Your task to perform on an android device: change the upload size in google photos Image 0: 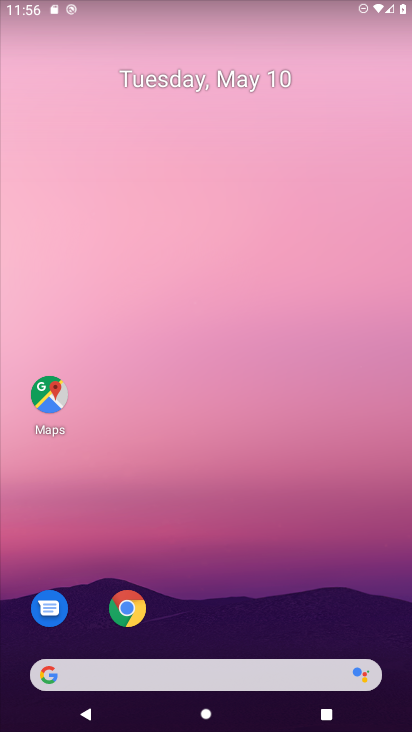
Step 0: drag from (252, 558) to (290, 82)
Your task to perform on an android device: change the upload size in google photos Image 1: 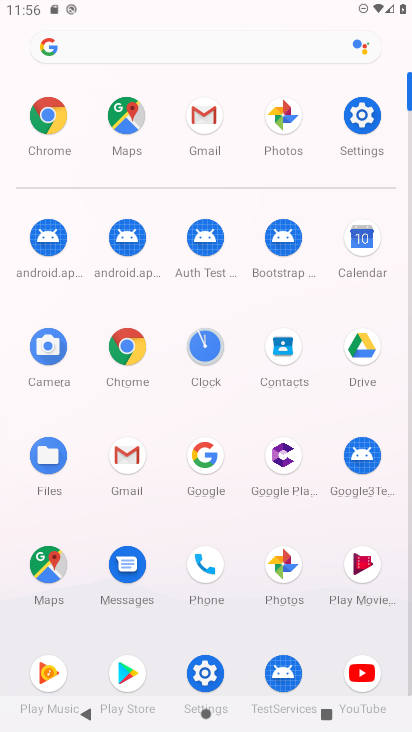
Step 1: click (274, 112)
Your task to perform on an android device: change the upload size in google photos Image 2: 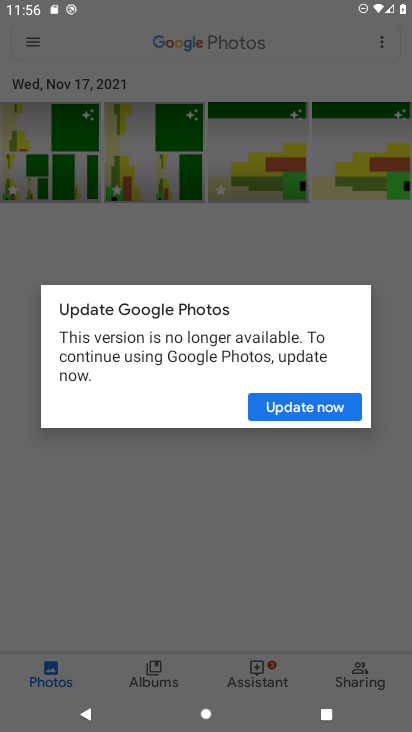
Step 2: click (338, 412)
Your task to perform on an android device: change the upload size in google photos Image 3: 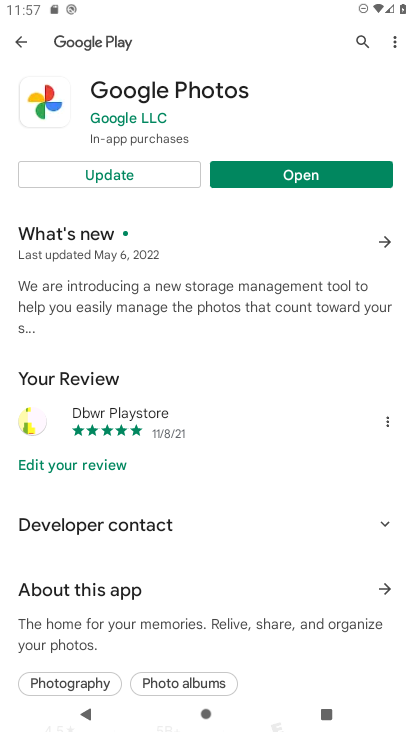
Step 3: click (339, 172)
Your task to perform on an android device: change the upload size in google photos Image 4: 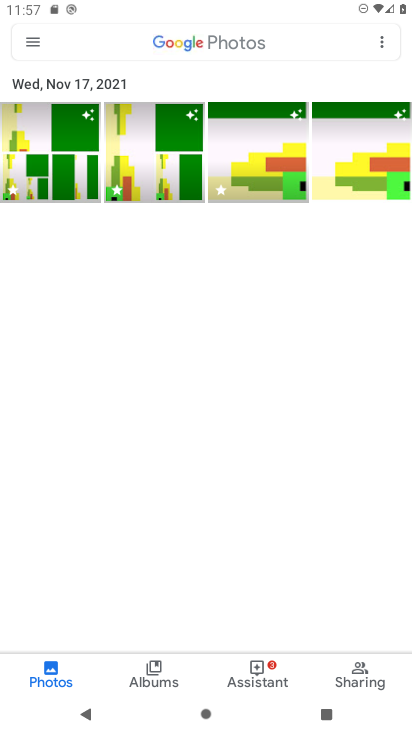
Step 4: click (32, 41)
Your task to perform on an android device: change the upload size in google photos Image 5: 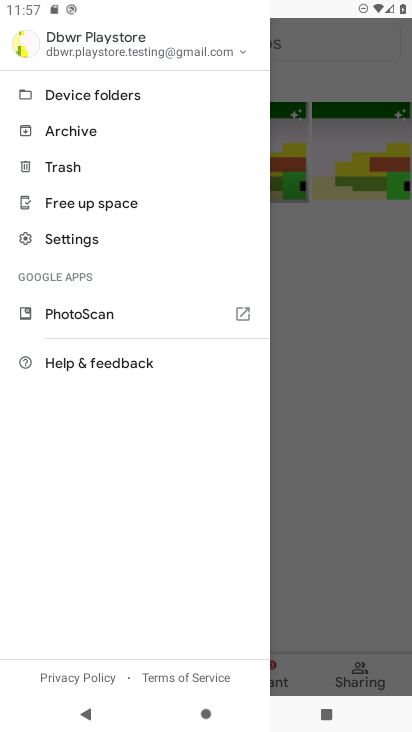
Step 5: click (123, 243)
Your task to perform on an android device: change the upload size in google photos Image 6: 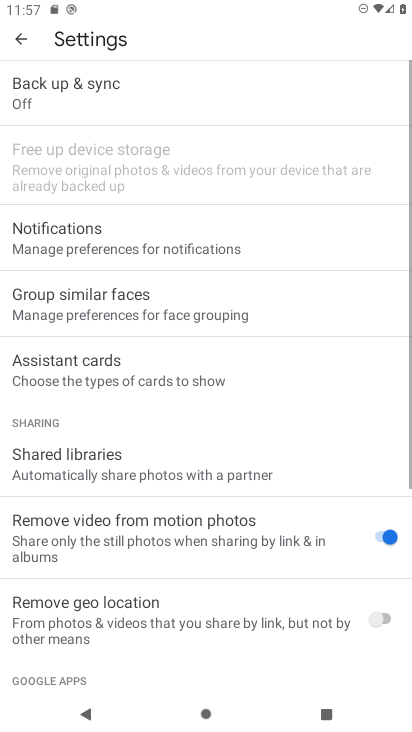
Step 6: click (81, 74)
Your task to perform on an android device: change the upload size in google photos Image 7: 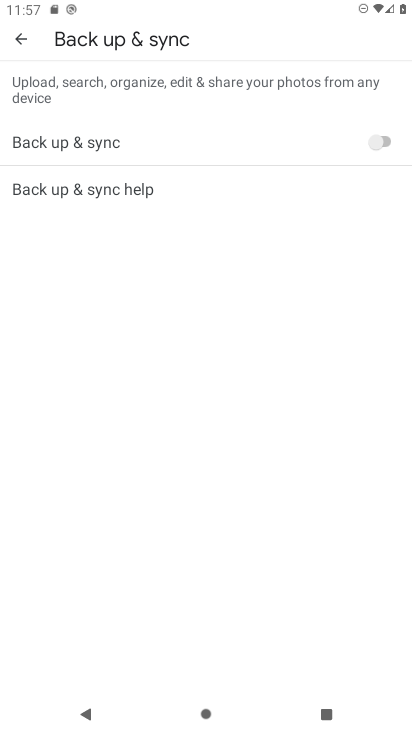
Step 7: click (384, 142)
Your task to perform on an android device: change the upload size in google photos Image 8: 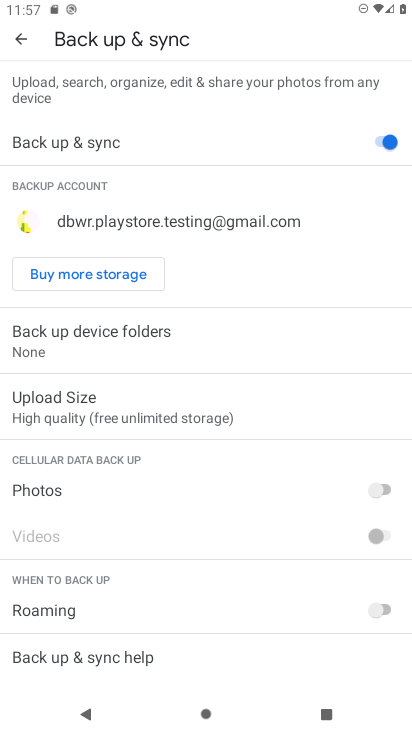
Step 8: click (207, 414)
Your task to perform on an android device: change the upload size in google photos Image 9: 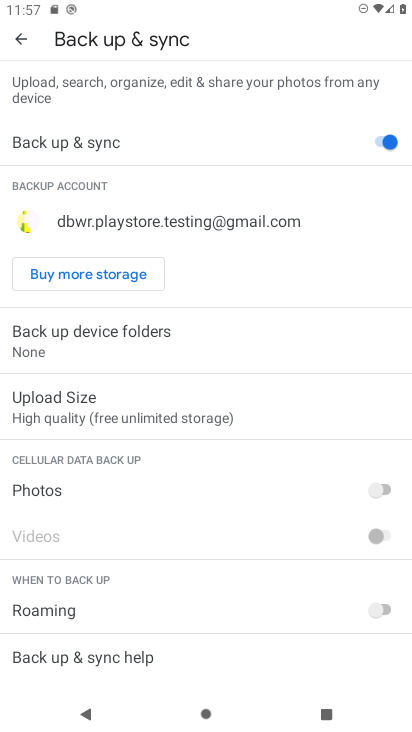
Step 9: click (210, 405)
Your task to perform on an android device: change the upload size in google photos Image 10: 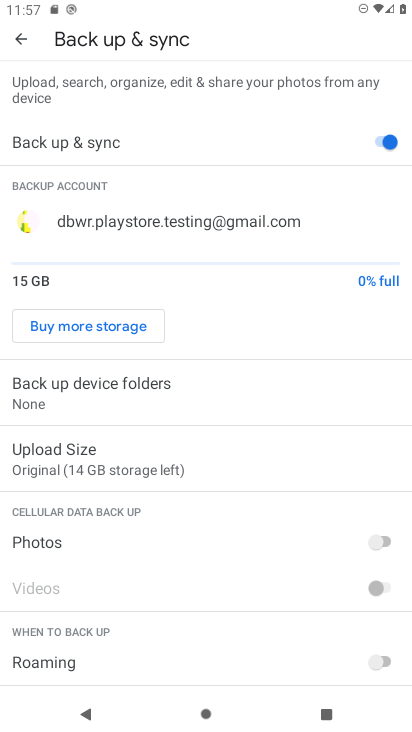
Step 10: click (144, 461)
Your task to perform on an android device: change the upload size in google photos Image 11: 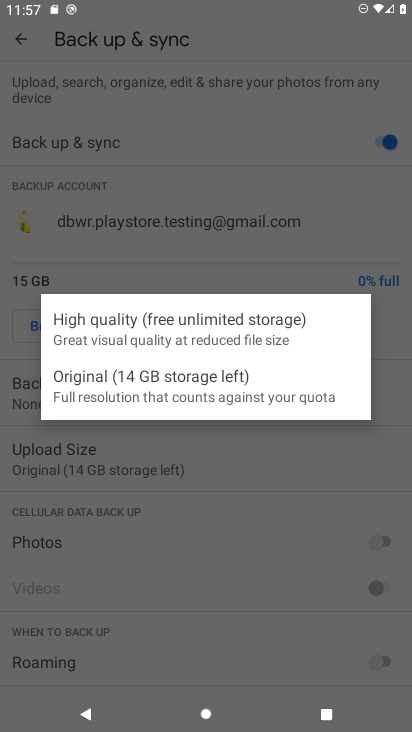
Step 11: click (199, 324)
Your task to perform on an android device: change the upload size in google photos Image 12: 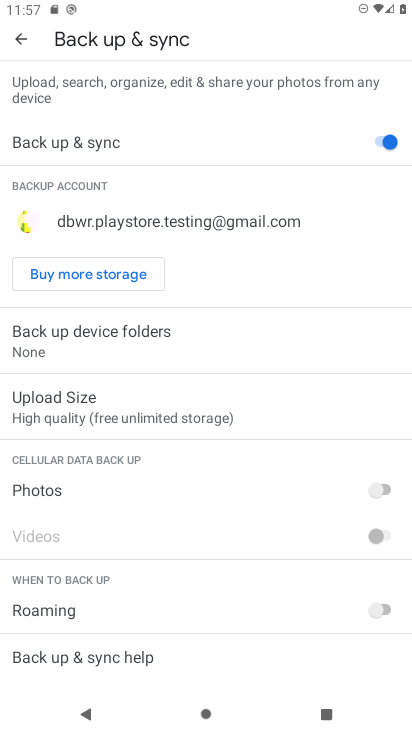
Step 12: task complete